Your task to perform on an android device: Open notification settings Image 0: 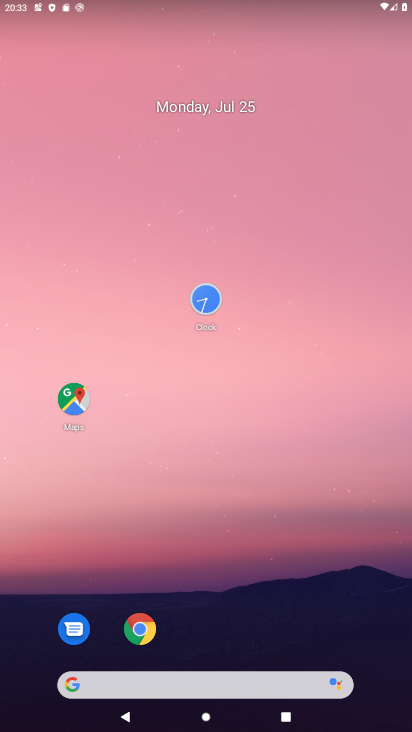
Step 0: drag from (195, 636) to (137, 0)
Your task to perform on an android device: Open notification settings Image 1: 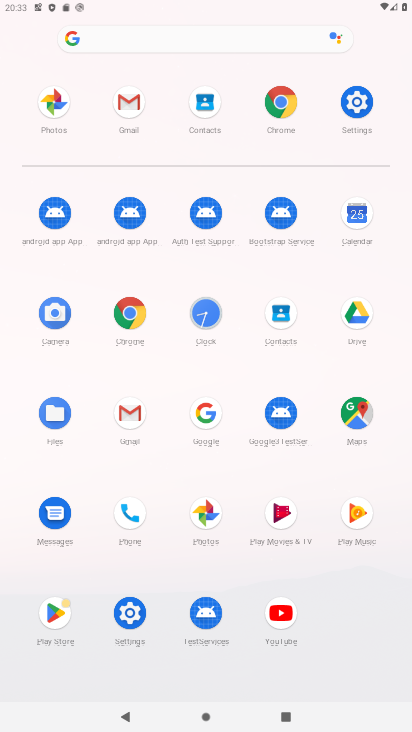
Step 1: click (120, 617)
Your task to perform on an android device: Open notification settings Image 2: 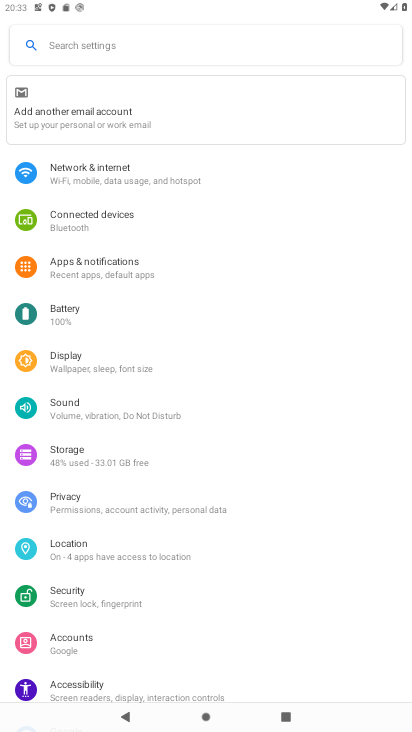
Step 2: click (131, 266)
Your task to perform on an android device: Open notification settings Image 3: 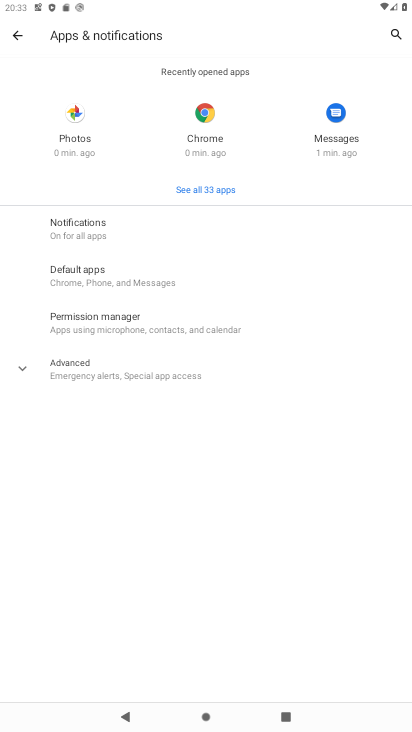
Step 3: click (115, 239)
Your task to perform on an android device: Open notification settings Image 4: 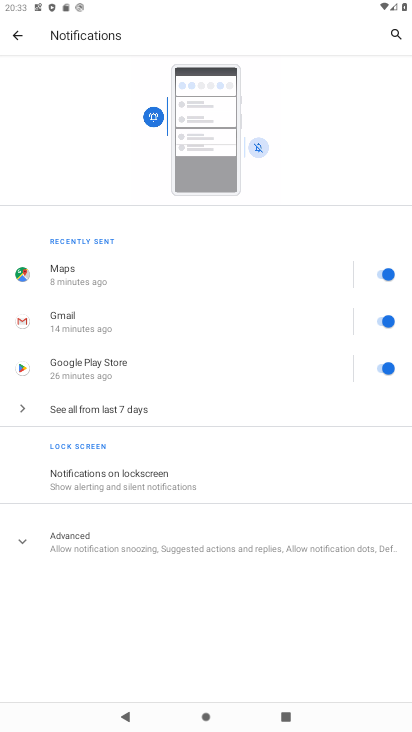
Step 4: task complete